Your task to perform on an android device: remove spam from my inbox in the gmail app Image 0: 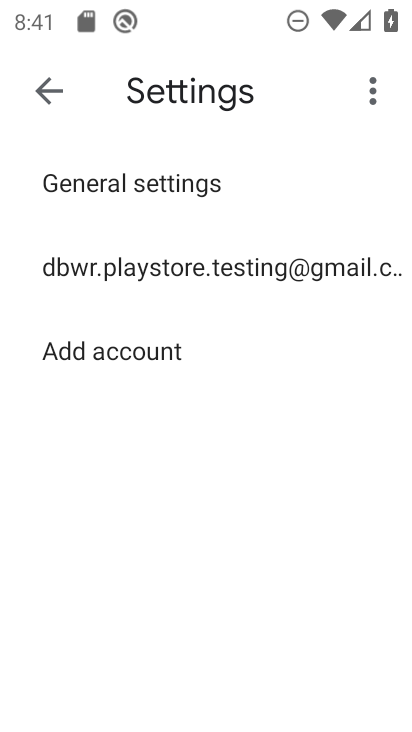
Step 0: press back button
Your task to perform on an android device: remove spam from my inbox in the gmail app Image 1: 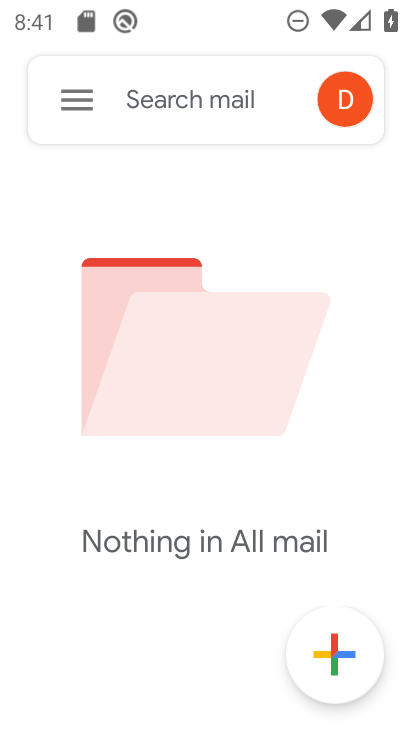
Step 1: press back button
Your task to perform on an android device: remove spam from my inbox in the gmail app Image 2: 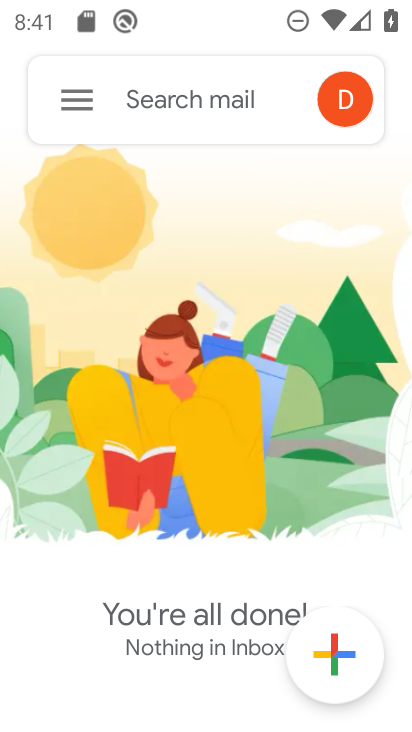
Step 2: click (73, 101)
Your task to perform on an android device: remove spam from my inbox in the gmail app Image 3: 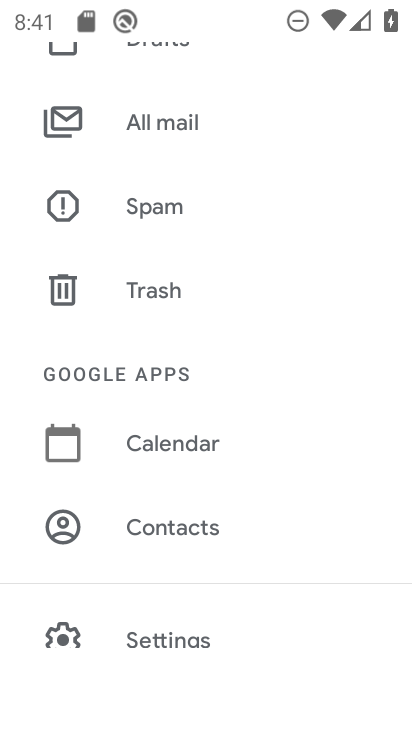
Step 3: click (166, 209)
Your task to perform on an android device: remove spam from my inbox in the gmail app Image 4: 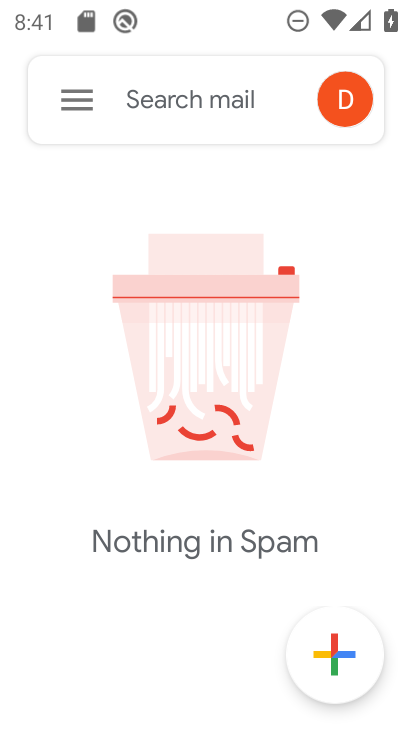
Step 4: task complete